Your task to perform on an android device: open the mobile data screen to see how much data has been used Image 0: 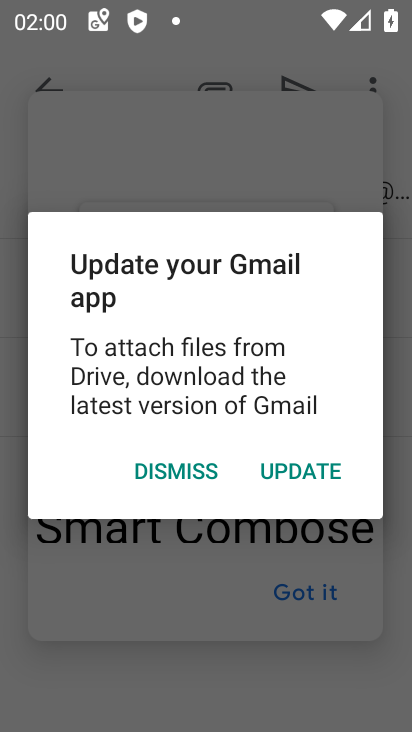
Step 0: press home button
Your task to perform on an android device: open the mobile data screen to see how much data has been used Image 1: 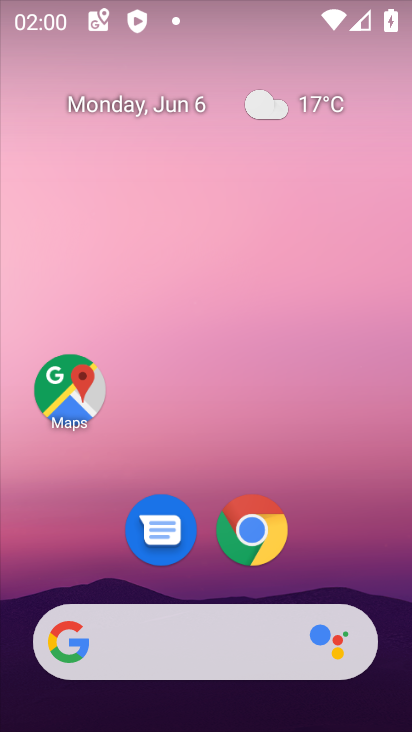
Step 1: drag from (249, 538) to (212, 250)
Your task to perform on an android device: open the mobile data screen to see how much data has been used Image 2: 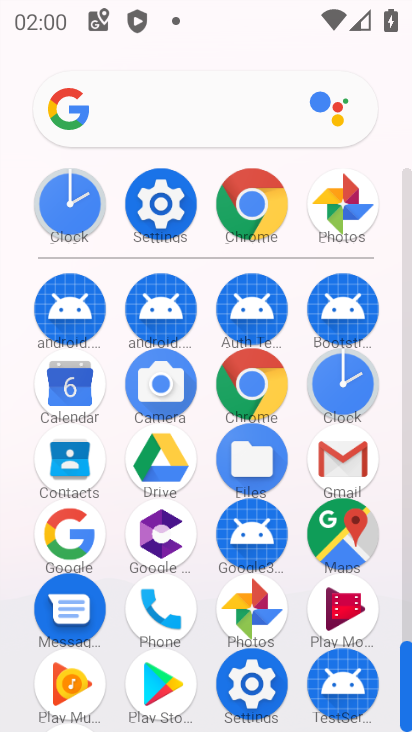
Step 2: click (254, 673)
Your task to perform on an android device: open the mobile data screen to see how much data has been used Image 3: 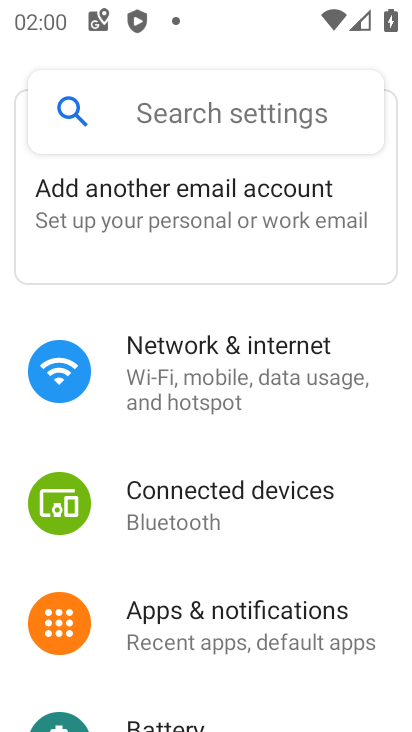
Step 3: click (207, 337)
Your task to perform on an android device: open the mobile data screen to see how much data has been used Image 4: 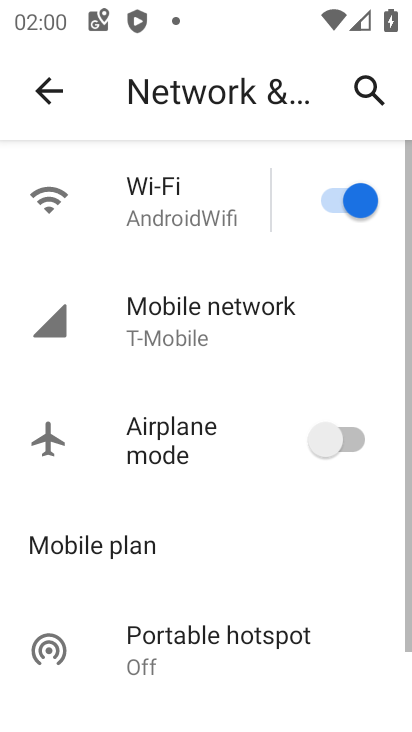
Step 4: click (189, 319)
Your task to perform on an android device: open the mobile data screen to see how much data has been used Image 5: 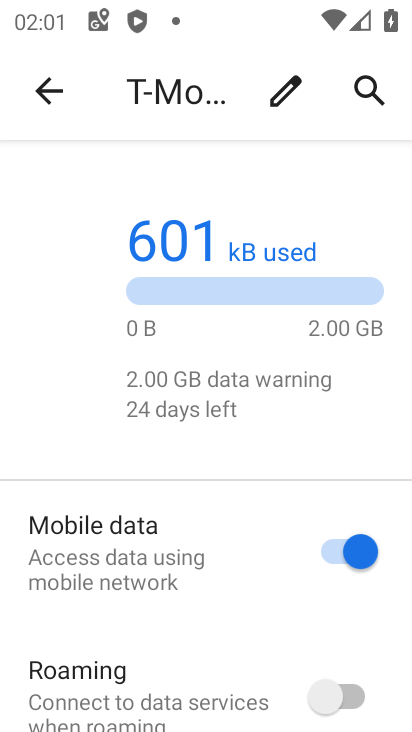
Step 5: task complete